Your task to perform on an android device: set the timer Image 0: 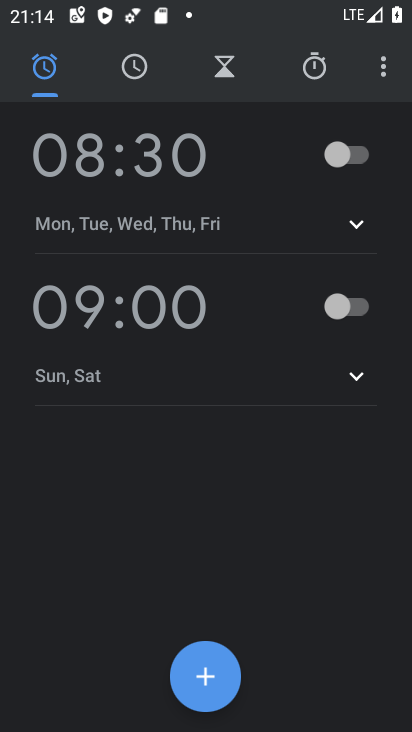
Step 0: click (229, 68)
Your task to perform on an android device: set the timer Image 1: 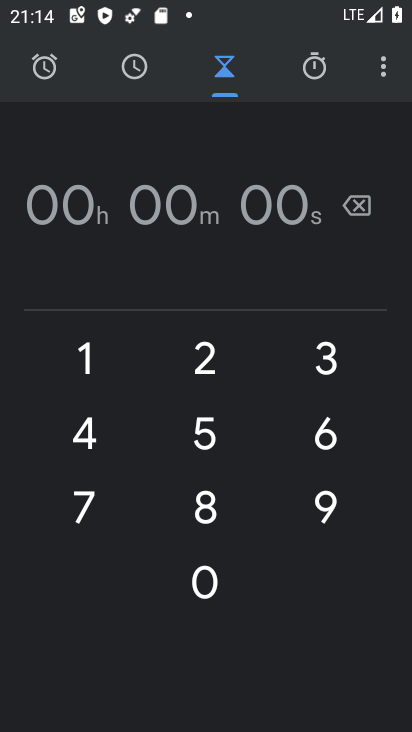
Step 1: click (84, 362)
Your task to perform on an android device: set the timer Image 2: 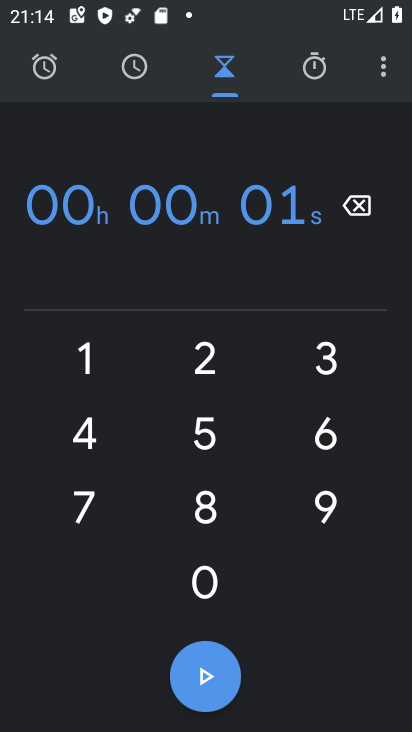
Step 2: task complete